Your task to perform on an android device: set the stopwatch Image 0: 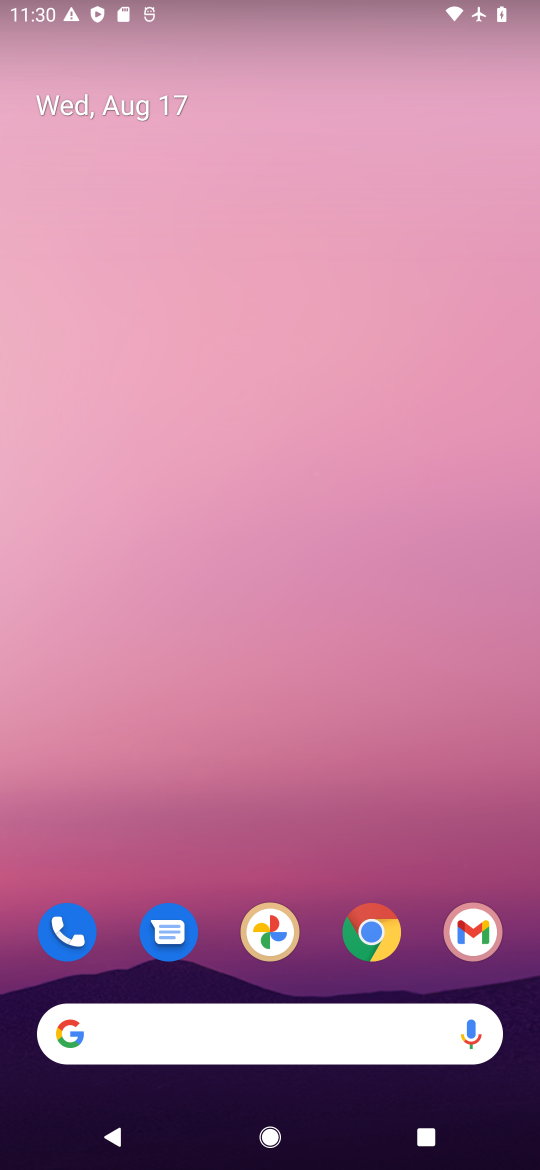
Step 0: drag from (289, 868) to (245, 293)
Your task to perform on an android device: set the stopwatch Image 1: 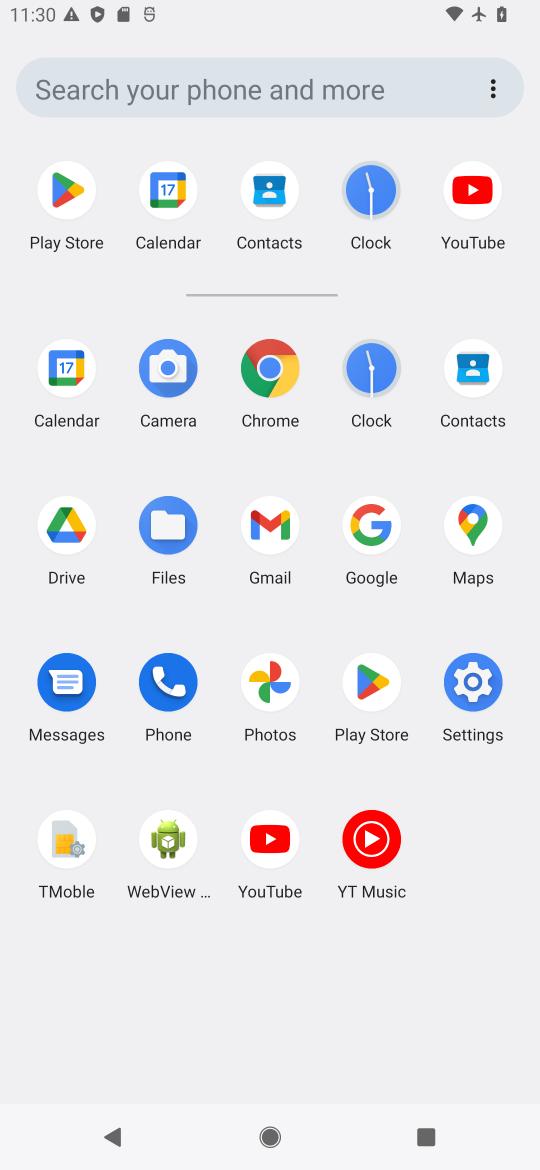
Step 1: click (369, 379)
Your task to perform on an android device: set the stopwatch Image 2: 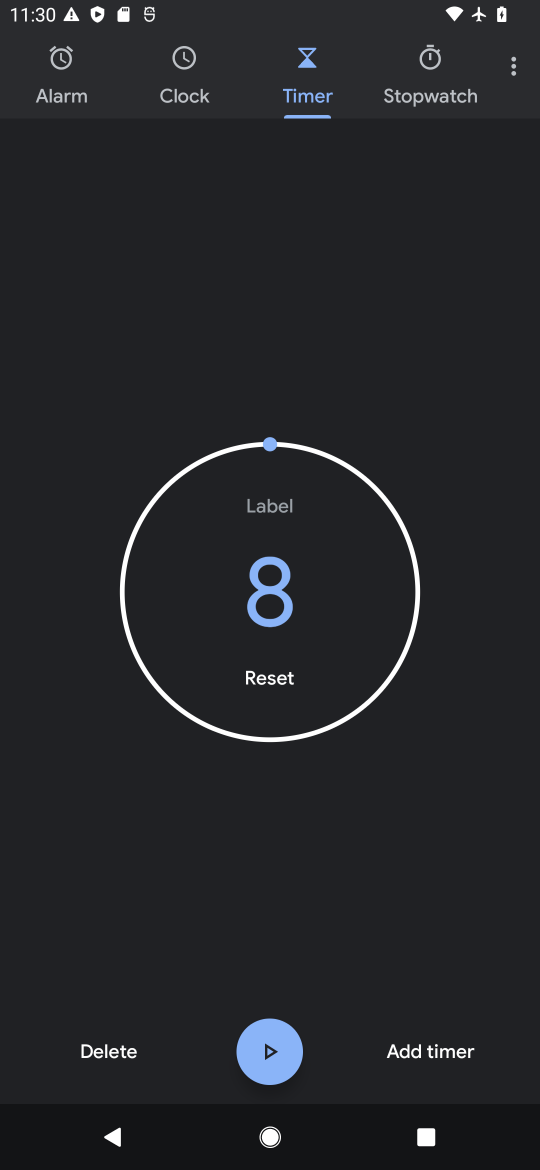
Step 2: click (439, 85)
Your task to perform on an android device: set the stopwatch Image 3: 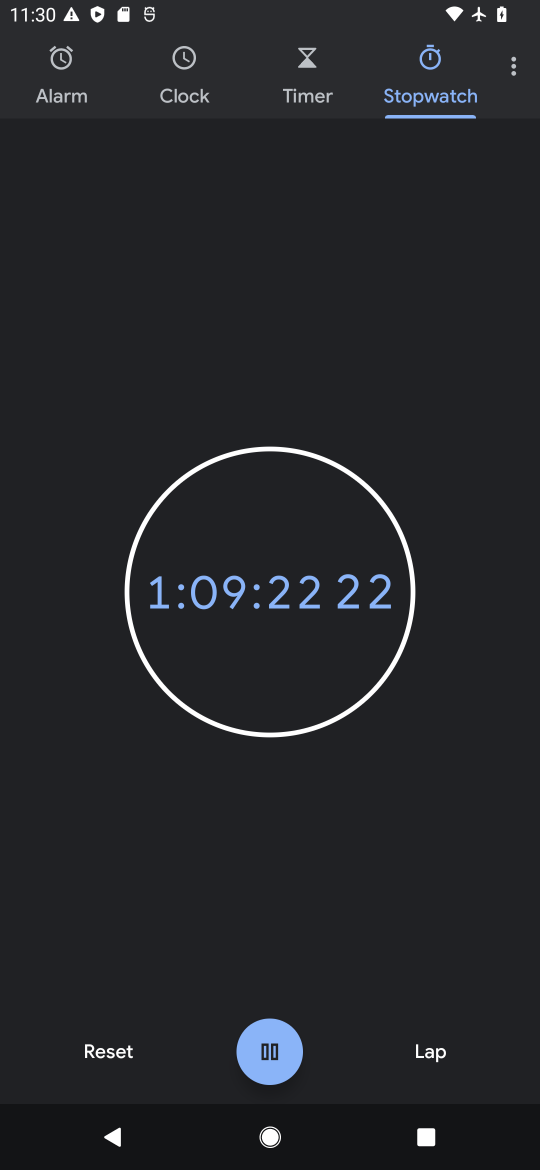
Step 3: task complete